Your task to perform on an android device: turn on the 24-hour format for clock Image 0: 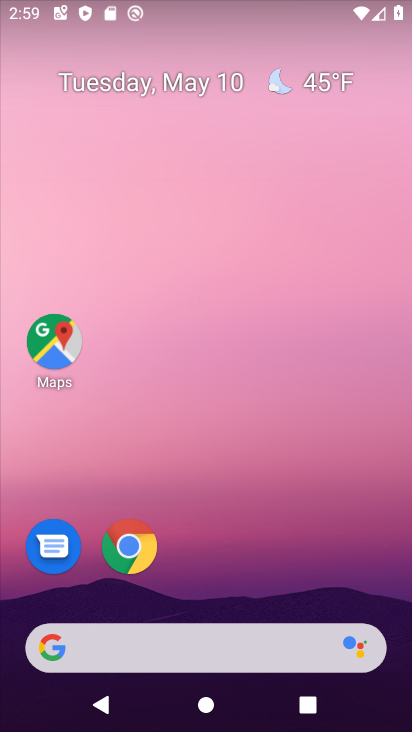
Step 0: drag from (217, 511) to (236, 95)
Your task to perform on an android device: turn on the 24-hour format for clock Image 1: 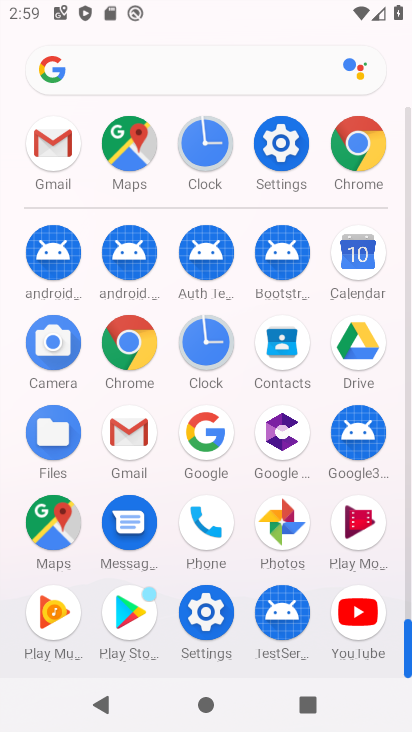
Step 1: click (205, 338)
Your task to perform on an android device: turn on the 24-hour format for clock Image 2: 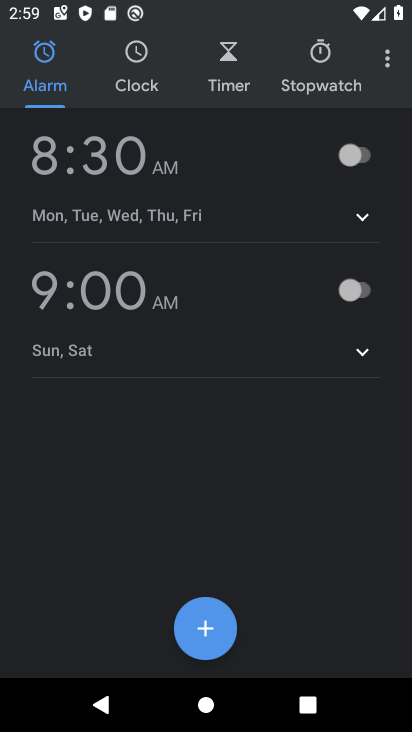
Step 2: drag from (383, 51) to (334, 109)
Your task to perform on an android device: turn on the 24-hour format for clock Image 3: 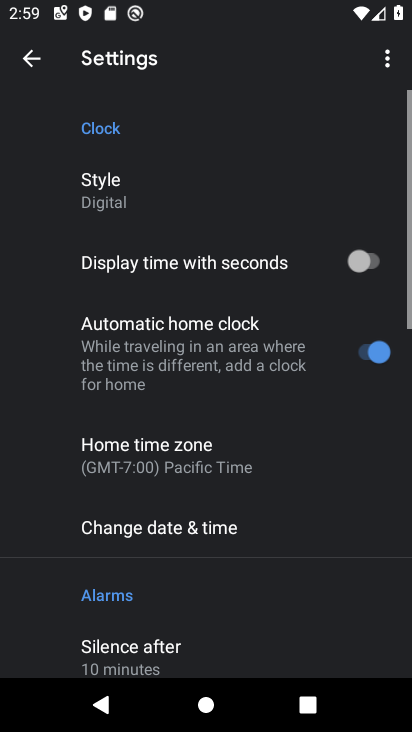
Step 3: drag from (196, 612) to (189, 147)
Your task to perform on an android device: turn on the 24-hour format for clock Image 4: 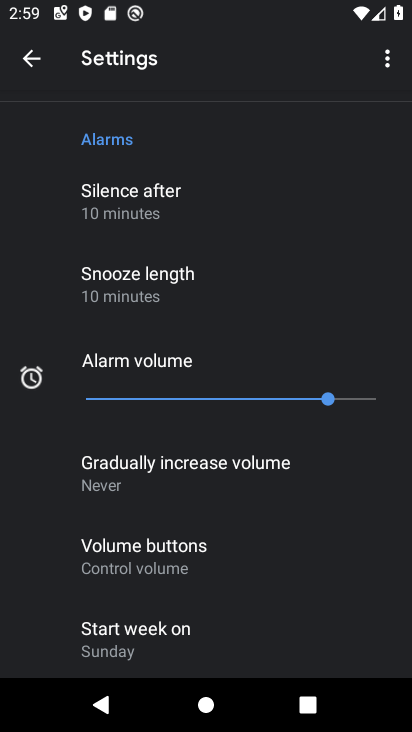
Step 4: drag from (214, 167) to (226, 466)
Your task to perform on an android device: turn on the 24-hour format for clock Image 5: 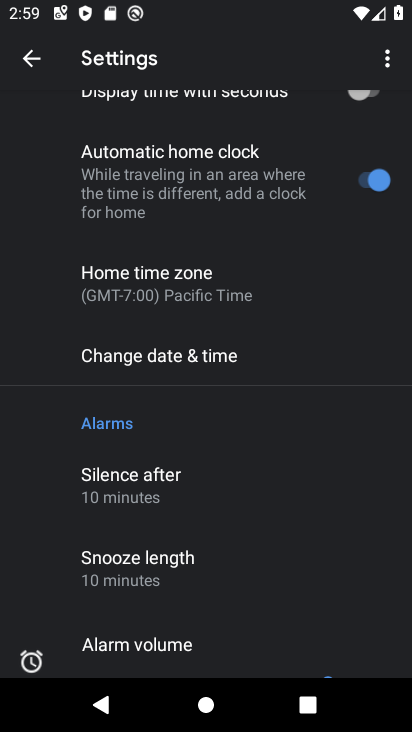
Step 5: click (214, 359)
Your task to perform on an android device: turn on the 24-hour format for clock Image 6: 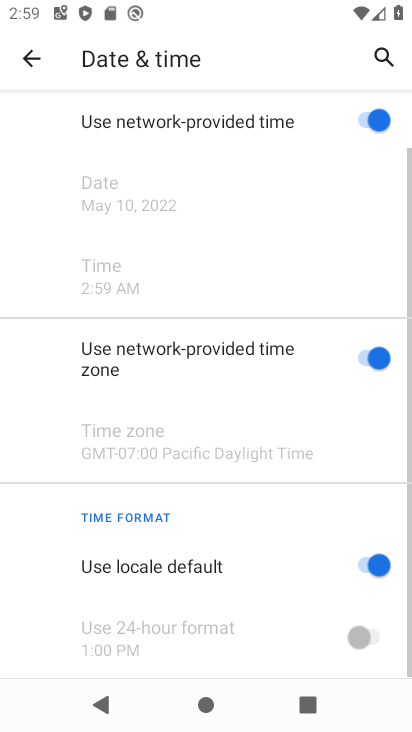
Step 6: drag from (205, 578) to (209, 224)
Your task to perform on an android device: turn on the 24-hour format for clock Image 7: 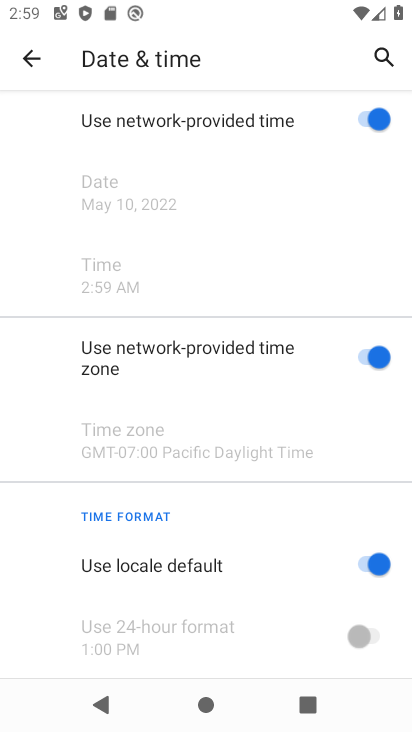
Step 7: click (376, 565)
Your task to perform on an android device: turn on the 24-hour format for clock Image 8: 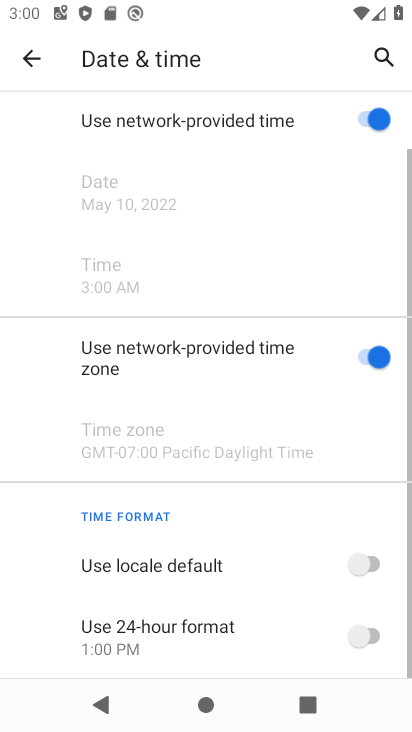
Step 8: click (364, 634)
Your task to perform on an android device: turn on the 24-hour format for clock Image 9: 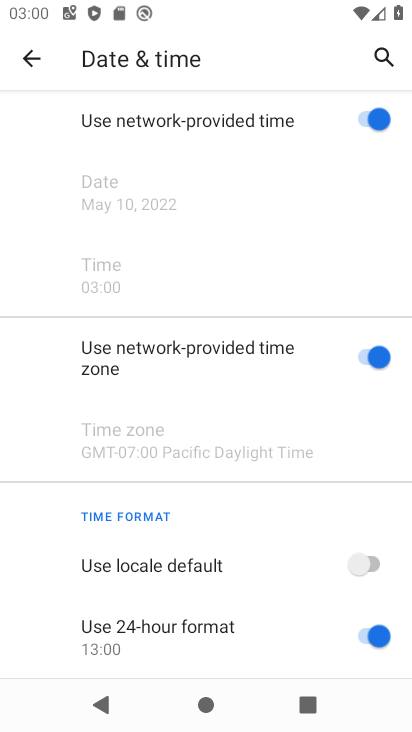
Step 9: task complete